Your task to perform on an android device: change the upload size in google photos Image 0: 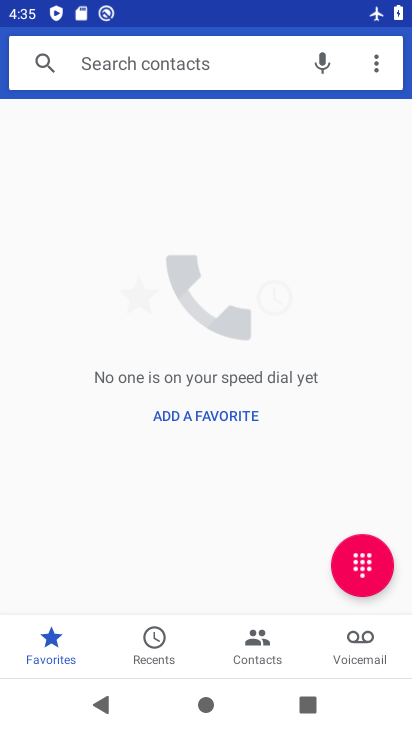
Step 0: press home button
Your task to perform on an android device: change the upload size in google photos Image 1: 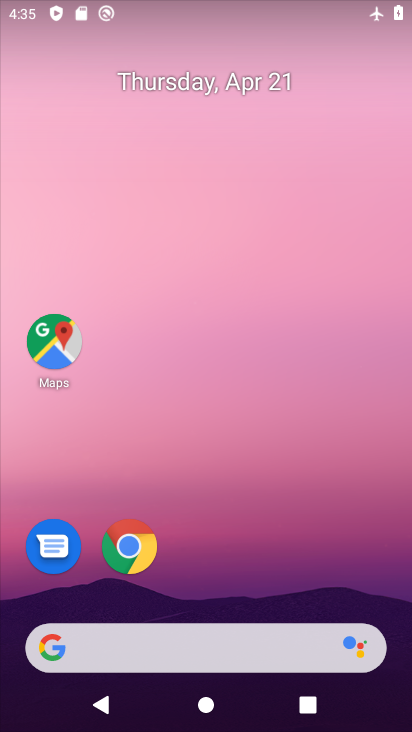
Step 1: drag from (302, 503) to (373, 114)
Your task to perform on an android device: change the upload size in google photos Image 2: 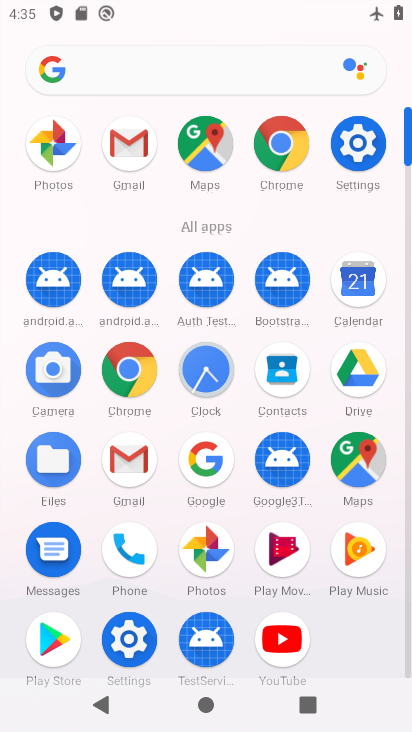
Step 2: click (47, 150)
Your task to perform on an android device: change the upload size in google photos Image 3: 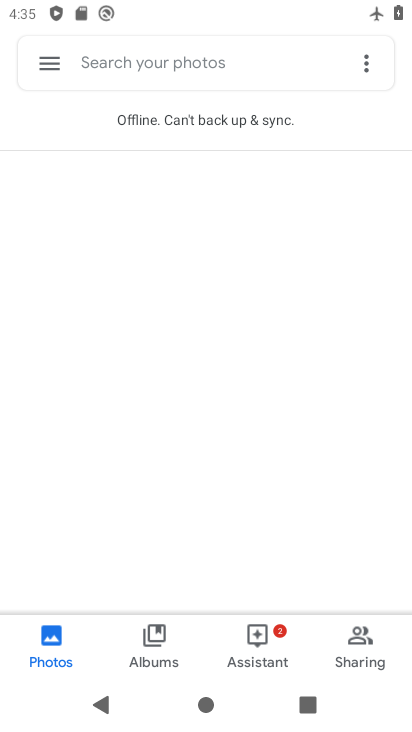
Step 3: click (53, 73)
Your task to perform on an android device: change the upload size in google photos Image 4: 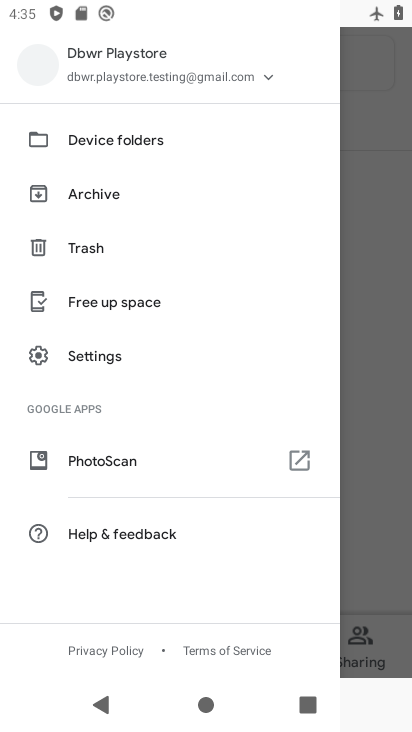
Step 4: click (113, 355)
Your task to perform on an android device: change the upload size in google photos Image 5: 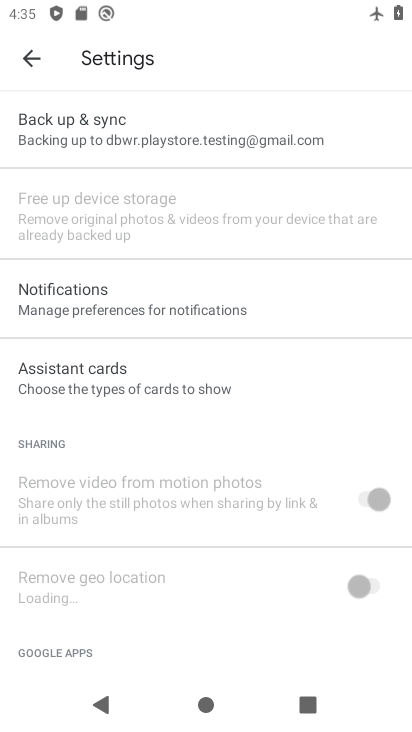
Step 5: click (158, 134)
Your task to perform on an android device: change the upload size in google photos Image 6: 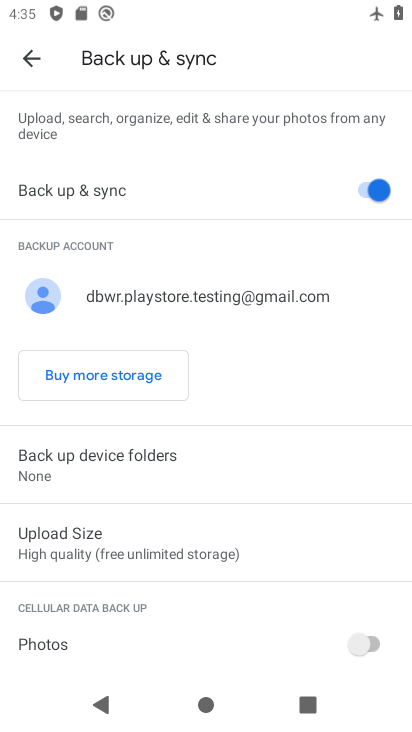
Step 6: click (191, 531)
Your task to perform on an android device: change the upload size in google photos Image 7: 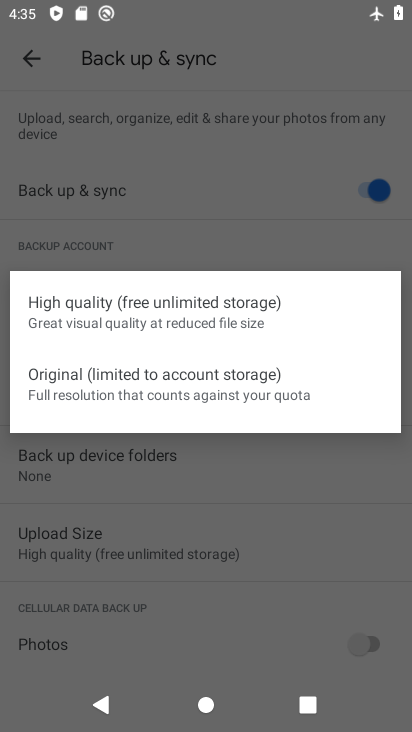
Step 7: click (193, 390)
Your task to perform on an android device: change the upload size in google photos Image 8: 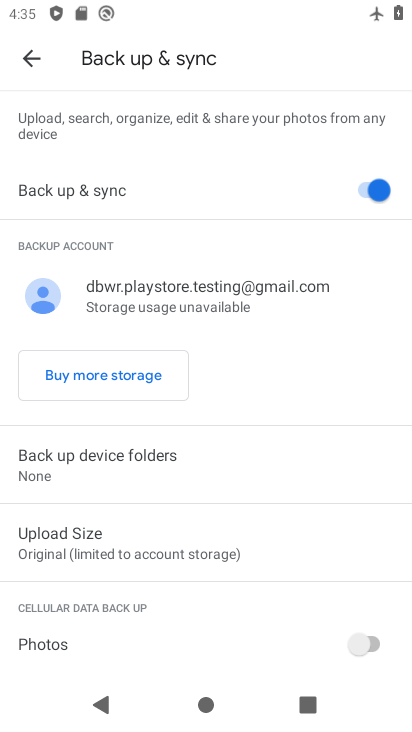
Step 8: task complete